Your task to perform on an android device: Open network settings Image 0: 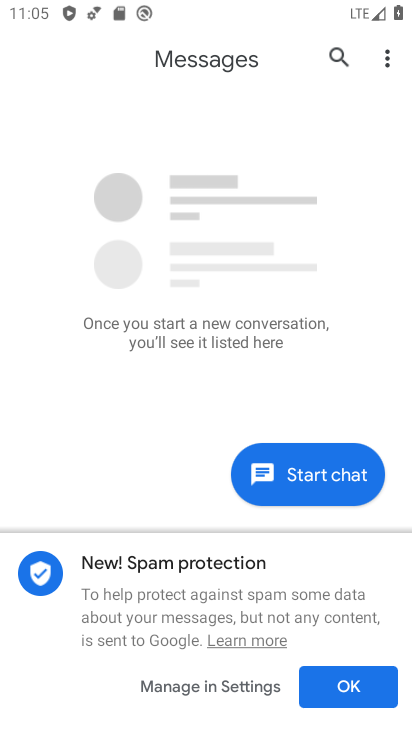
Step 0: press home button
Your task to perform on an android device: Open network settings Image 1: 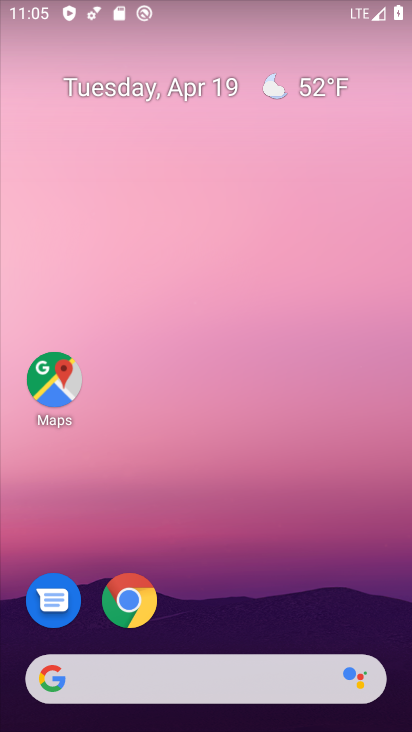
Step 1: drag from (207, 636) to (185, 35)
Your task to perform on an android device: Open network settings Image 2: 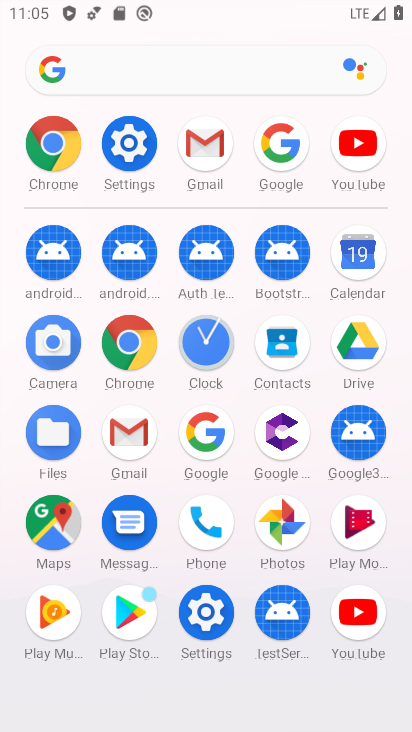
Step 2: click (125, 153)
Your task to perform on an android device: Open network settings Image 3: 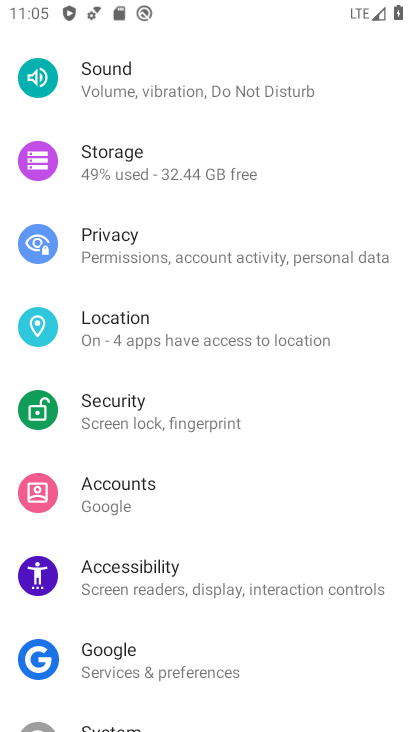
Step 3: drag from (208, 211) to (206, 611)
Your task to perform on an android device: Open network settings Image 4: 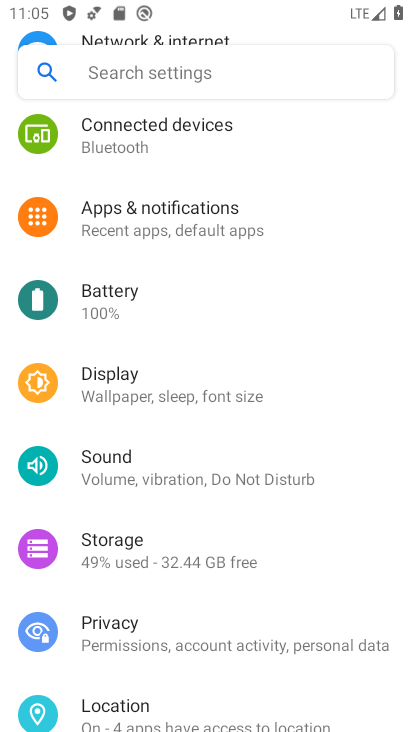
Step 4: drag from (180, 214) to (162, 536)
Your task to perform on an android device: Open network settings Image 5: 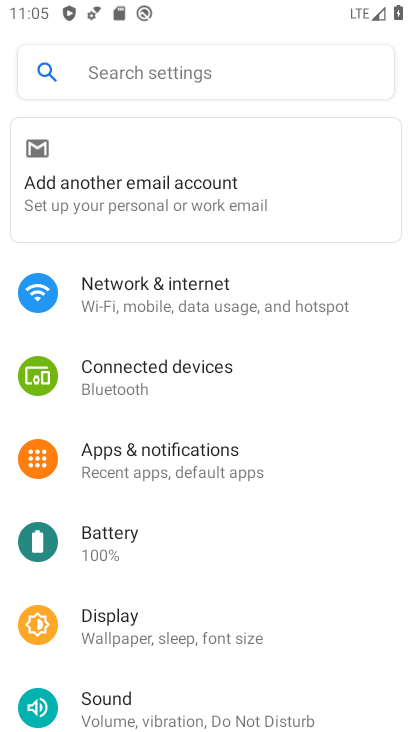
Step 5: click (118, 326)
Your task to perform on an android device: Open network settings Image 6: 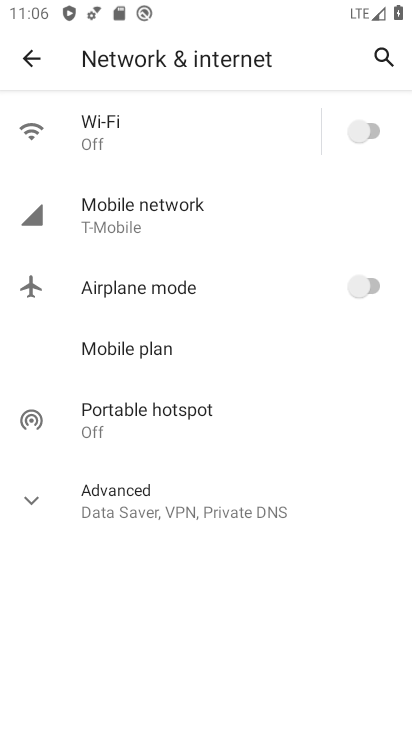
Step 6: click (99, 202)
Your task to perform on an android device: Open network settings Image 7: 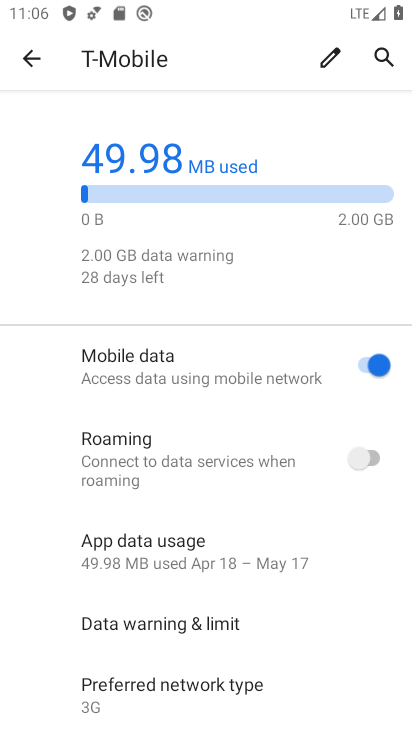
Step 7: drag from (225, 395) to (173, 4)
Your task to perform on an android device: Open network settings Image 8: 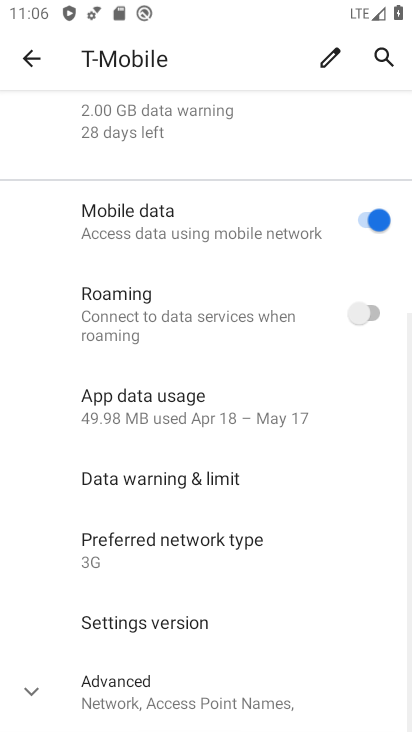
Step 8: drag from (219, 522) to (177, 114)
Your task to perform on an android device: Open network settings Image 9: 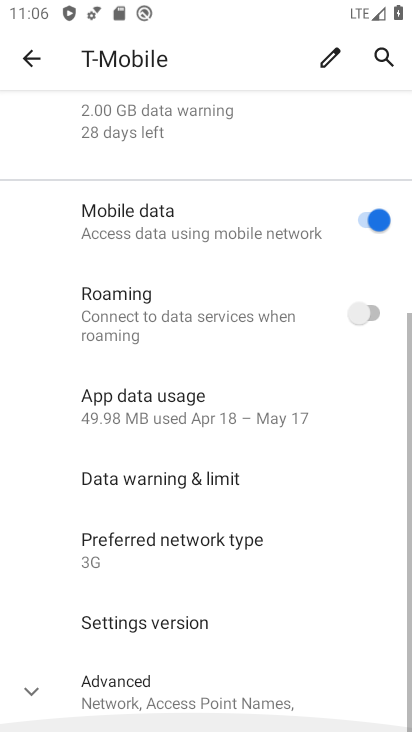
Step 9: click (125, 682)
Your task to perform on an android device: Open network settings Image 10: 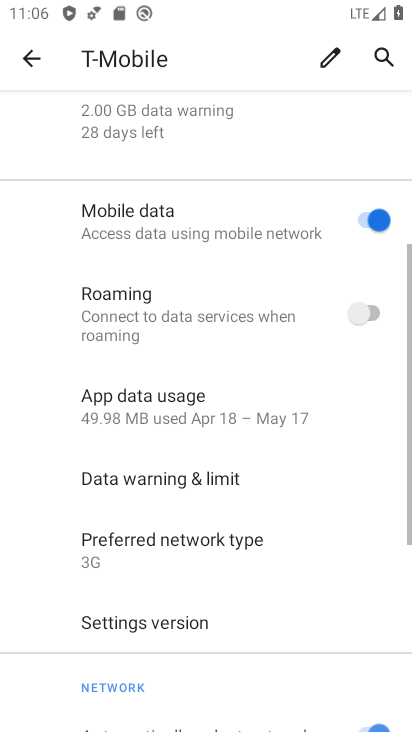
Step 10: task complete